Your task to perform on an android device: Show me recent news Image 0: 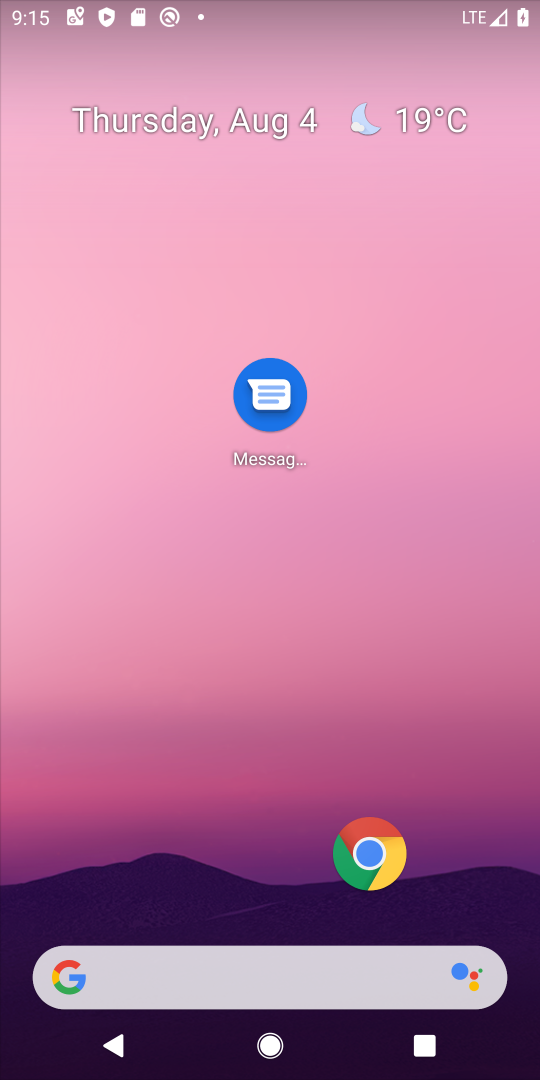
Step 0: drag from (315, 845) to (309, 433)
Your task to perform on an android device: Show me recent news Image 1: 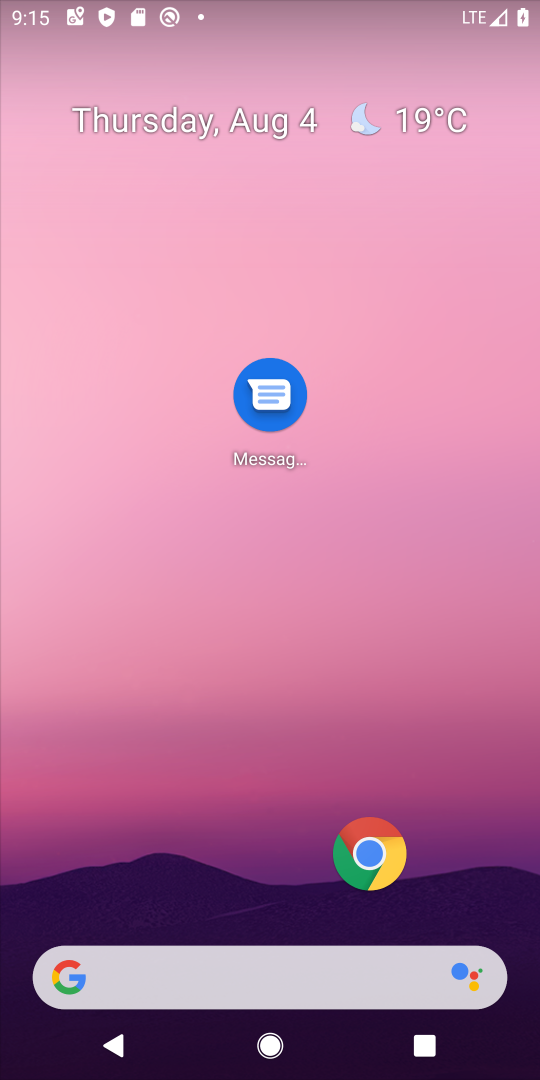
Step 1: drag from (232, 765) to (232, 344)
Your task to perform on an android device: Show me recent news Image 2: 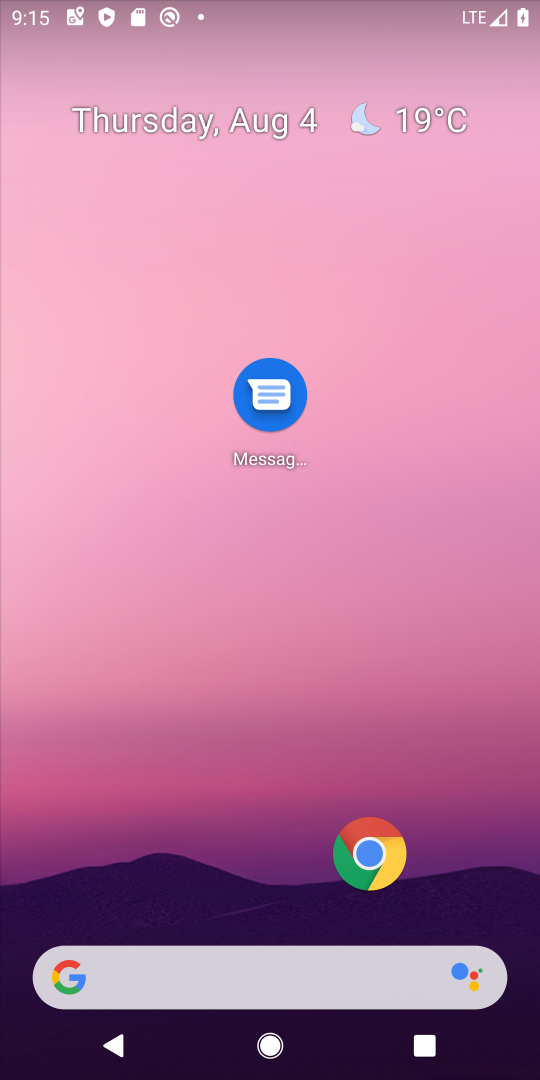
Step 2: drag from (241, 948) to (219, 402)
Your task to perform on an android device: Show me recent news Image 3: 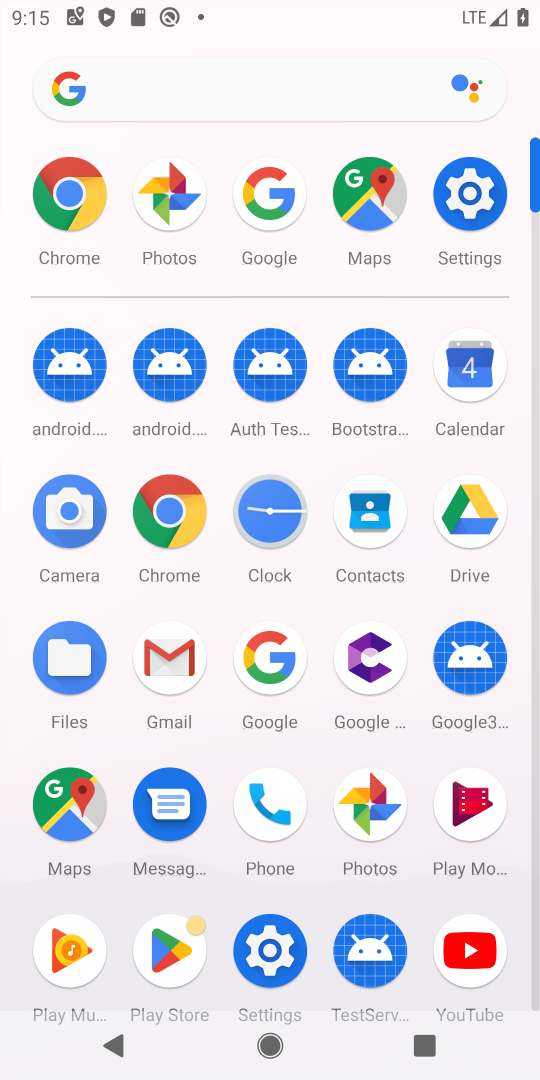
Step 3: click (262, 198)
Your task to perform on an android device: Show me recent news Image 4: 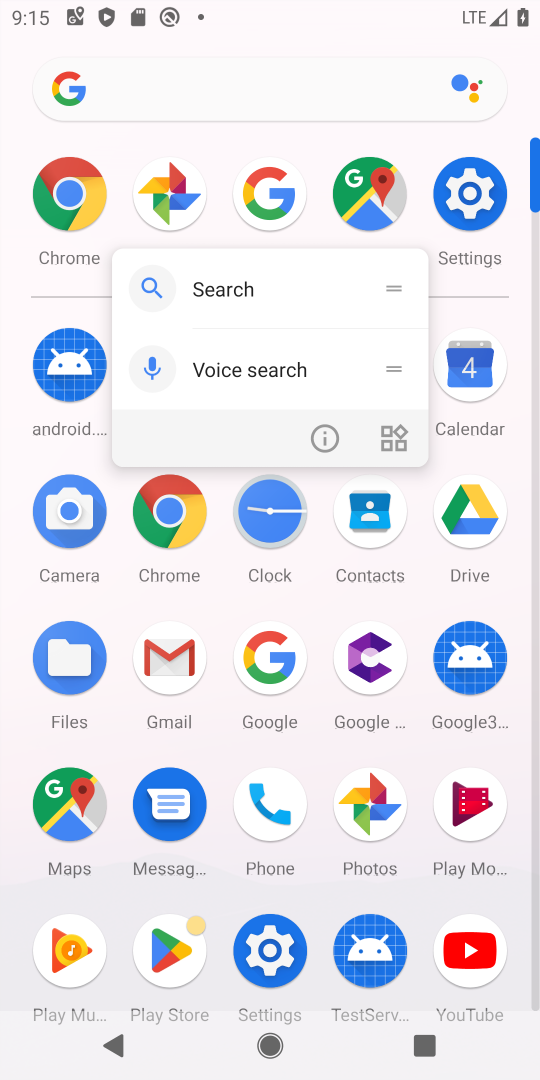
Step 4: click (262, 197)
Your task to perform on an android device: Show me recent news Image 5: 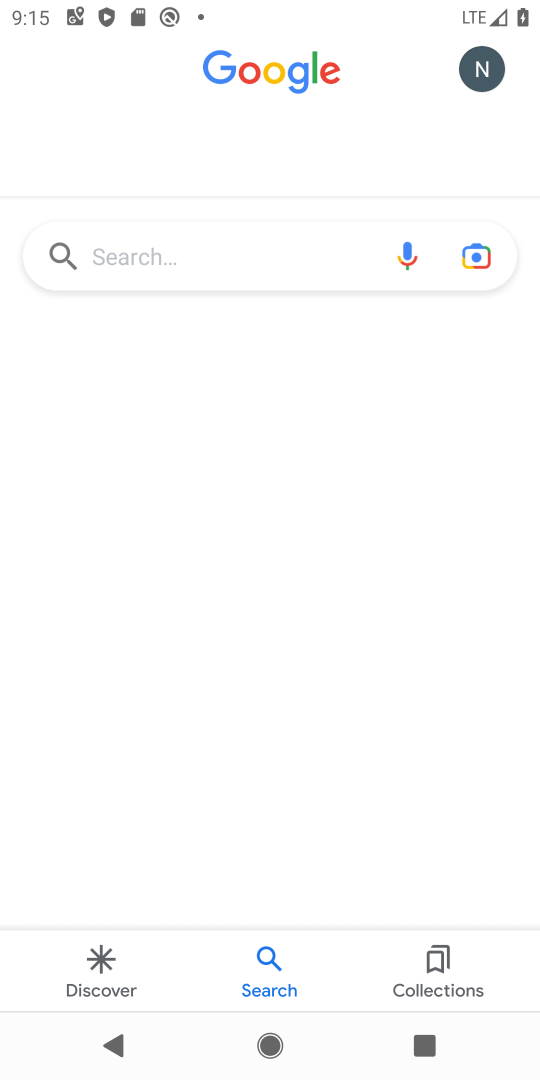
Step 5: click (177, 250)
Your task to perform on an android device: Show me recent news Image 6: 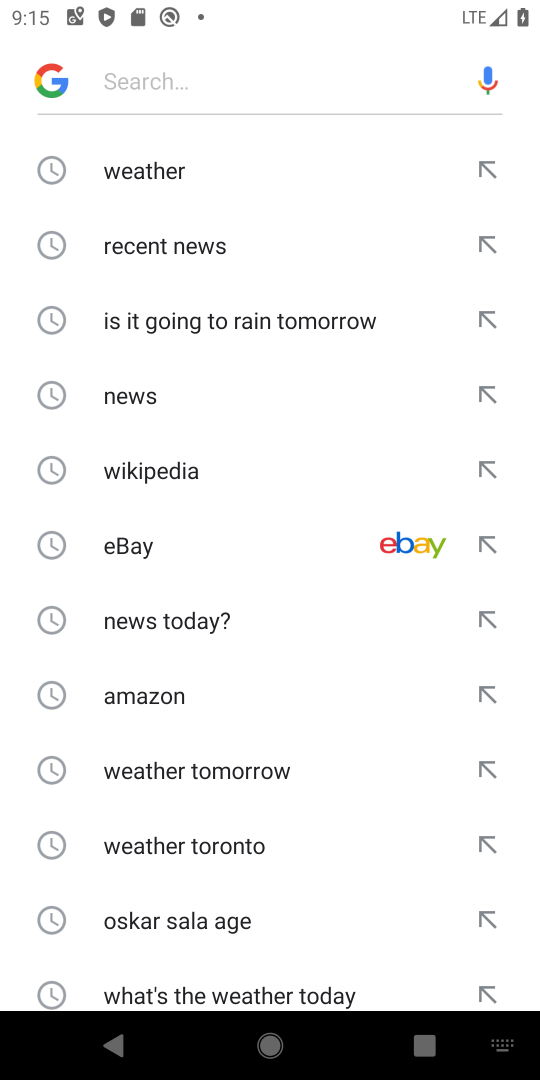
Step 6: click (169, 253)
Your task to perform on an android device: Show me recent news Image 7: 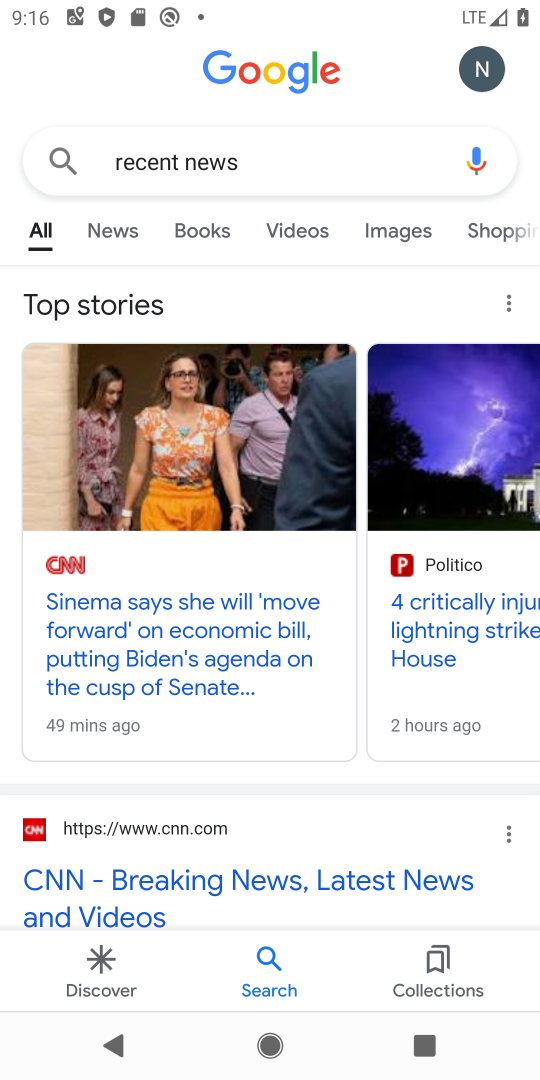
Step 7: task complete